Your task to perform on an android device: Toggle the flashlight Image 0: 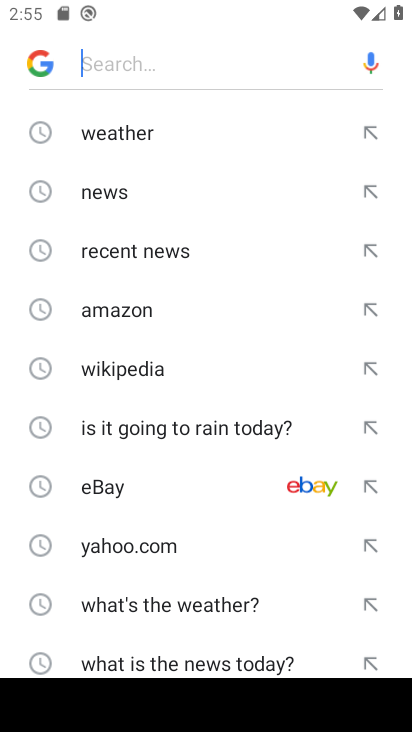
Step 0: press home button
Your task to perform on an android device: Toggle the flashlight Image 1: 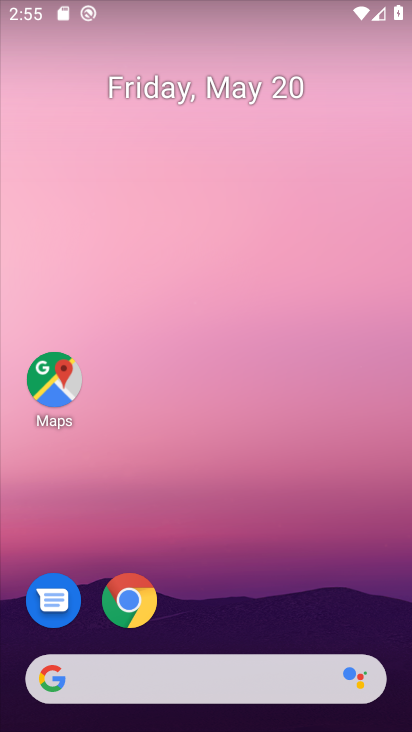
Step 1: drag from (274, 0) to (258, 426)
Your task to perform on an android device: Toggle the flashlight Image 2: 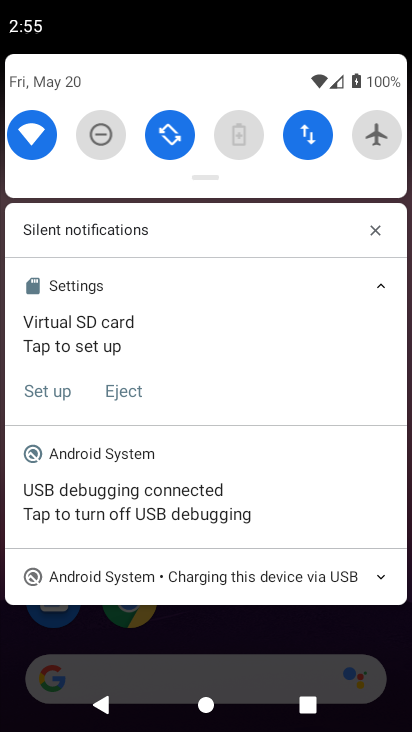
Step 2: drag from (200, 89) to (205, 424)
Your task to perform on an android device: Toggle the flashlight Image 3: 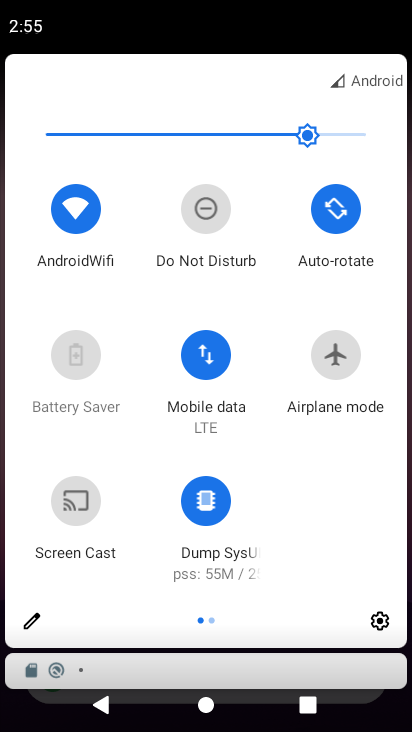
Step 3: click (36, 620)
Your task to perform on an android device: Toggle the flashlight Image 4: 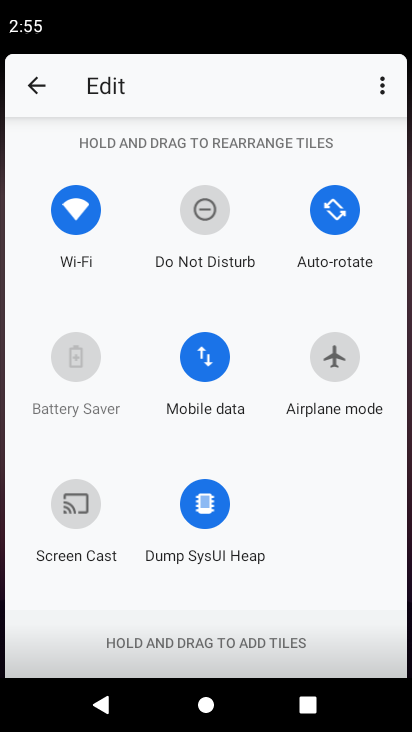
Step 4: task complete